Your task to perform on an android device: Open Reddit.com Image 0: 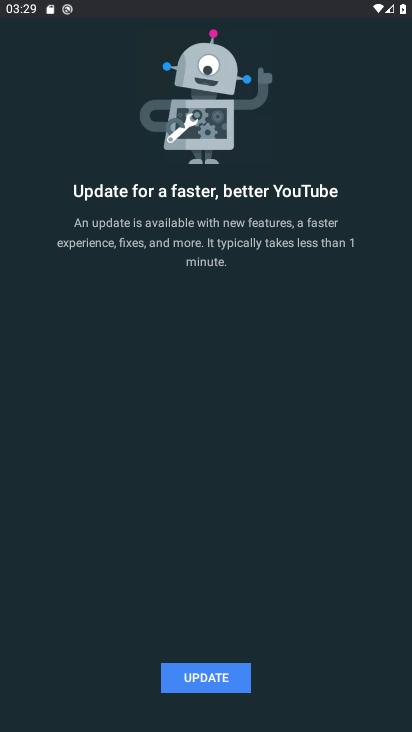
Step 0: press home button
Your task to perform on an android device: Open Reddit.com Image 1: 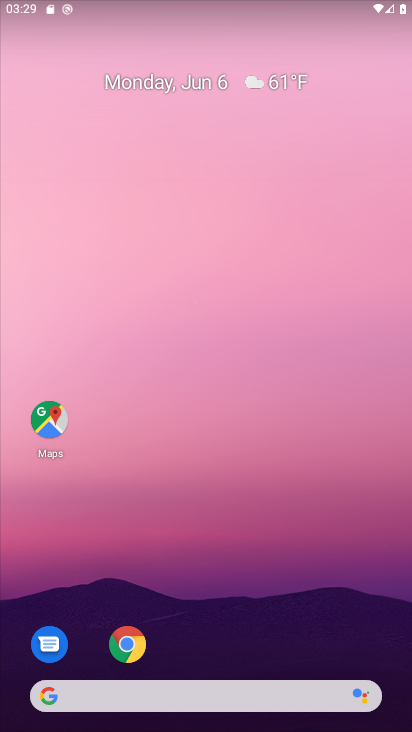
Step 1: click (121, 653)
Your task to perform on an android device: Open Reddit.com Image 2: 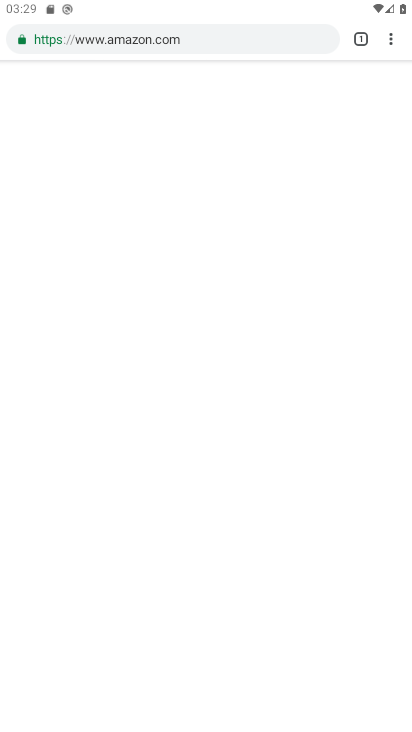
Step 2: click (231, 42)
Your task to perform on an android device: Open Reddit.com Image 3: 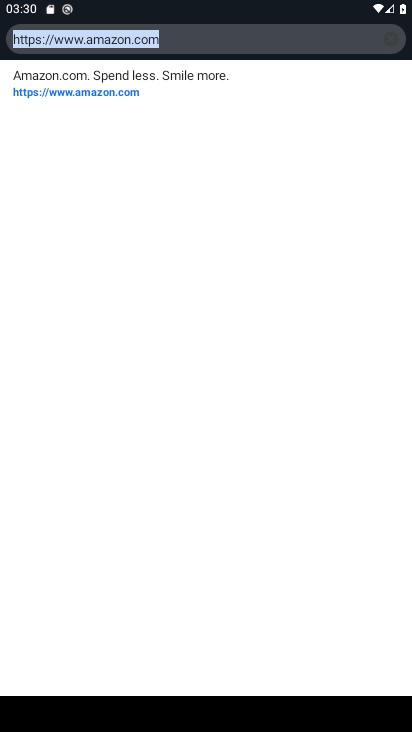
Step 3: type "reddit.com"
Your task to perform on an android device: Open Reddit.com Image 4: 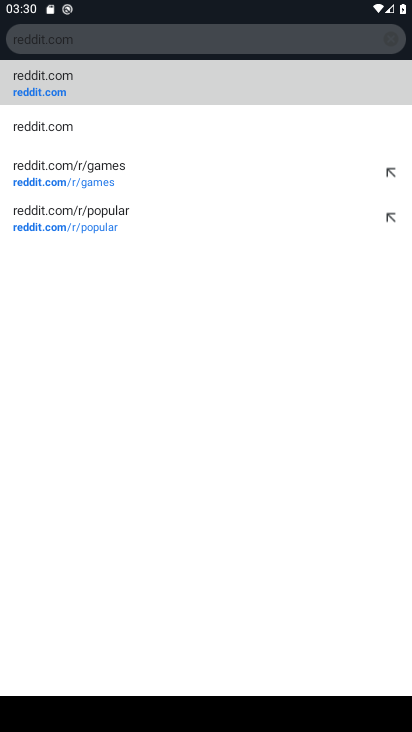
Step 4: click (76, 89)
Your task to perform on an android device: Open Reddit.com Image 5: 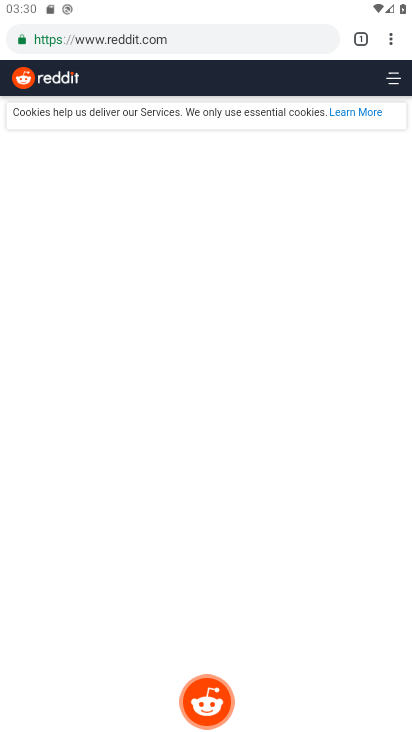
Step 5: task complete